Your task to perform on an android device: Go to Google Image 0: 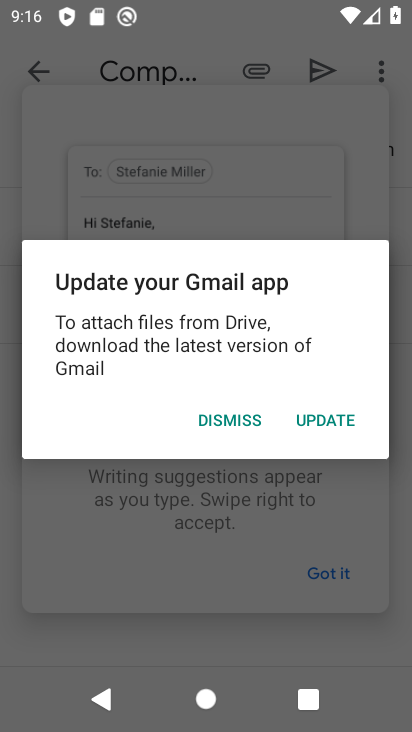
Step 0: press home button
Your task to perform on an android device: Go to Google Image 1: 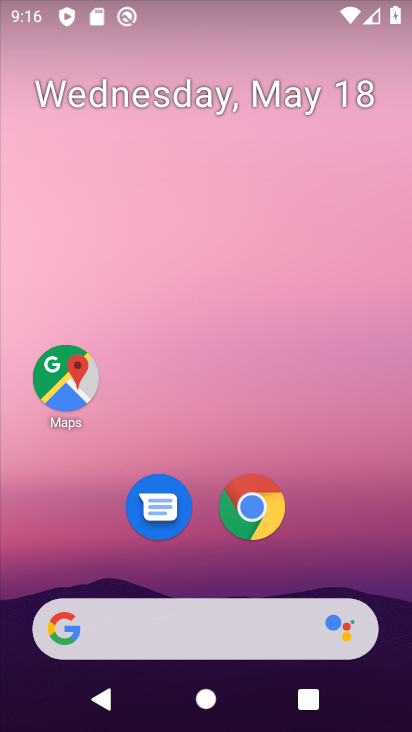
Step 1: drag from (322, 482) to (261, 6)
Your task to perform on an android device: Go to Google Image 2: 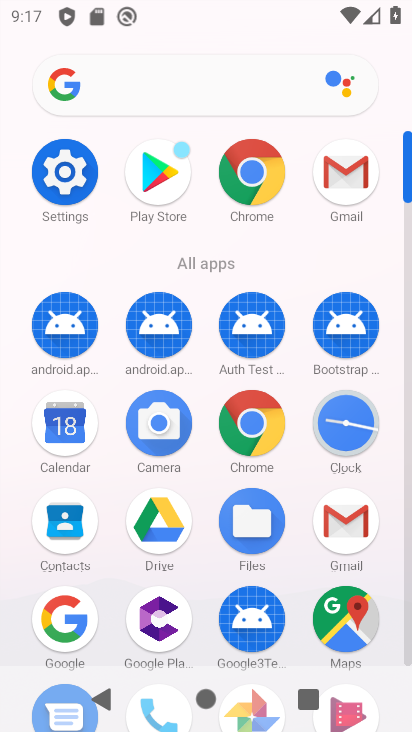
Step 2: click (47, 615)
Your task to perform on an android device: Go to Google Image 3: 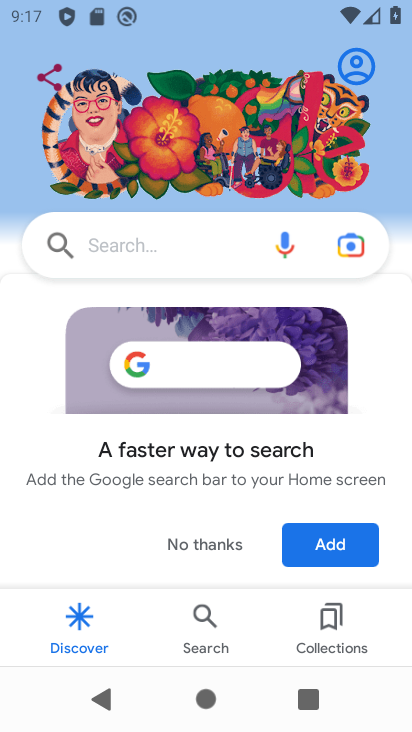
Step 3: task complete